Your task to perform on an android device: toggle translation in the chrome app Image 0: 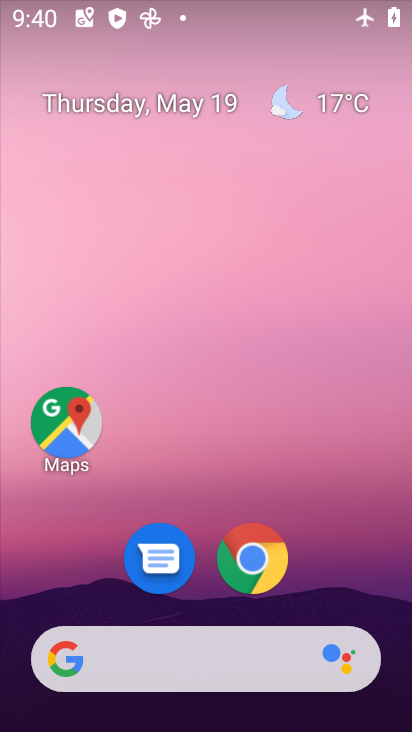
Step 0: click (250, 560)
Your task to perform on an android device: toggle translation in the chrome app Image 1: 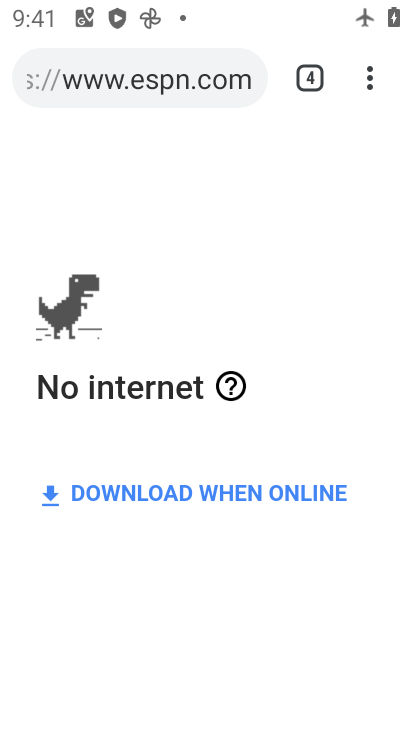
Step 1: click (370, 85)
Your task to perform on an android device: toggle translation in the chrome app Image 2: 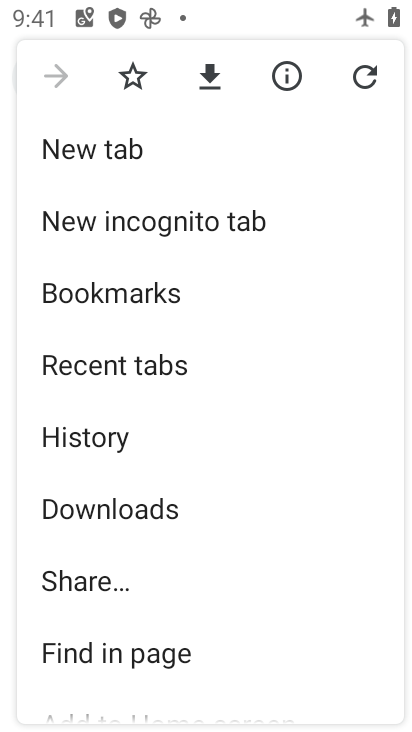
Step 2: drag from (177, 663) to (175, 280)
Your task to perform on an android device: toggle translation in the chrome app Image 3: 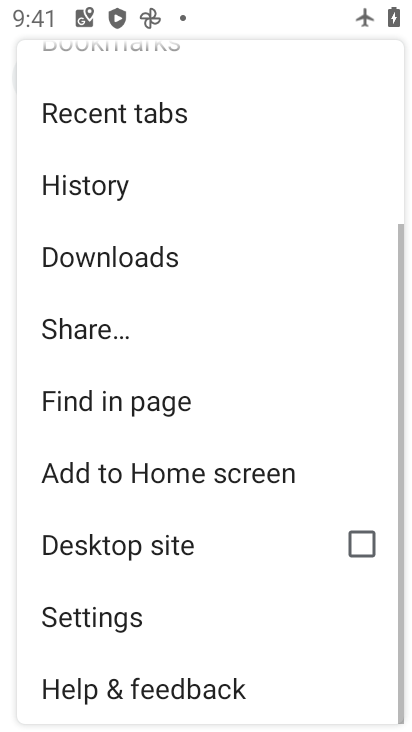
Step 3: drag from (131, 643) to (147, 235)
Your task to perform on an android device: toggle translation in the chrome app Image 4: 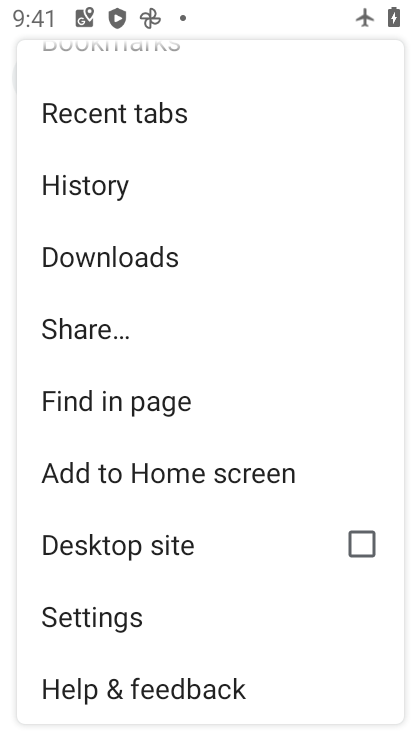
Step 4: click (106, 617)
Your task to perform on an android device: toggle translation in the chrome app Image 5: 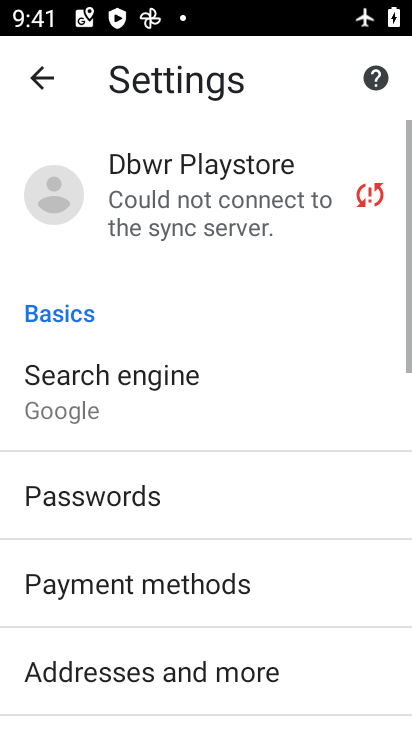
Step 5: drag from (113, 641) to (119, 308)
Your task to perform on an android device: toggle translation in the chrome app Image 6: 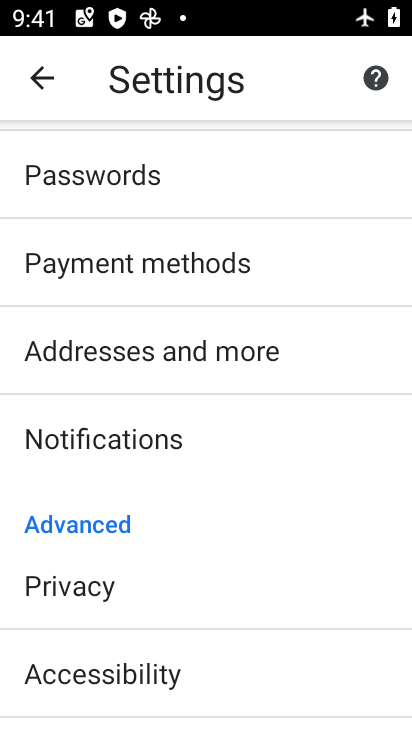
Step 6: drag from (130, 641) to (138, 307)
Your task to perform on an android device: toggle translation in the chrome app Image 7: 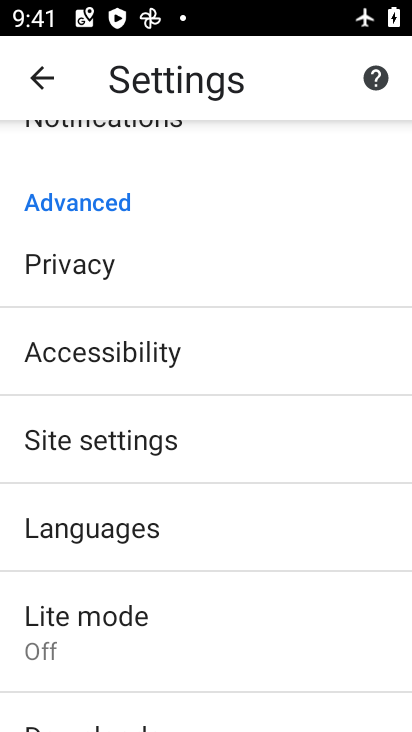
Step 7: click (100, 528)
Your task to perform on an android device: toggle translation in the chrome app Image 8: 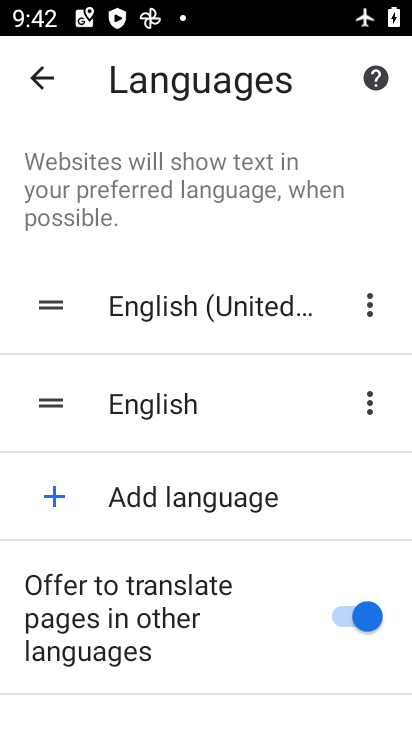
Step 8: click (345, 612)
Your task to perform on an android device: toggle translation in the chrome app Image 9: 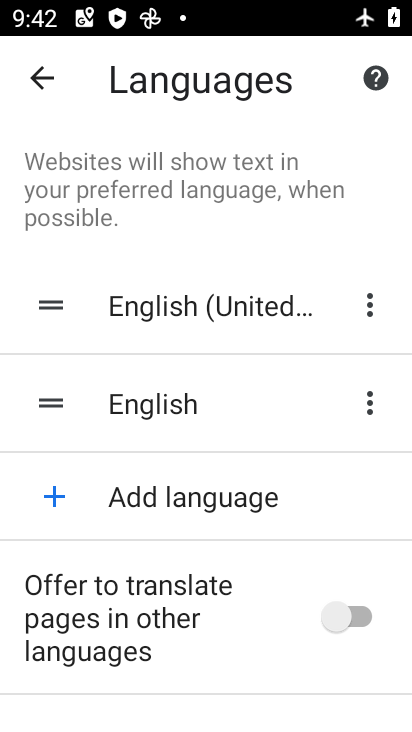
Step 9: task complete